Your task to perform on an android device: refresh tabs in the chrome app Image 0: 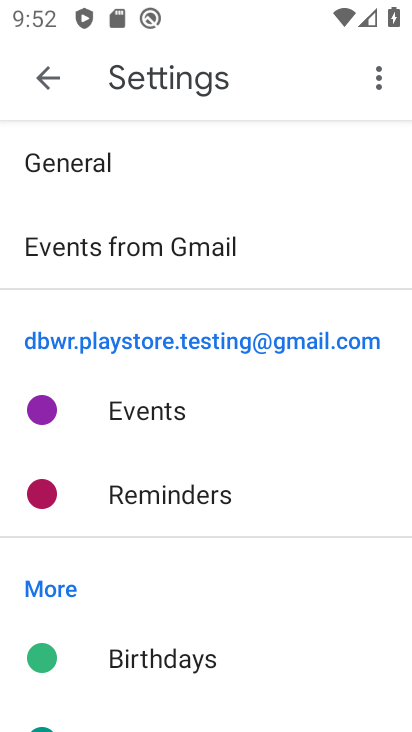
Step 0: press home button
Your task to perform on an android device: refresh tabs in the chrome app Image 1: 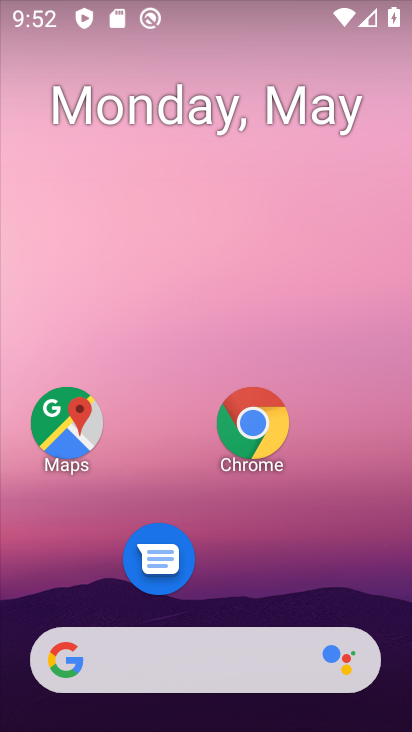
Step 1: click (243, 422)
Your task to perform on an android device: refresh tabs in the chrome app Image 2: 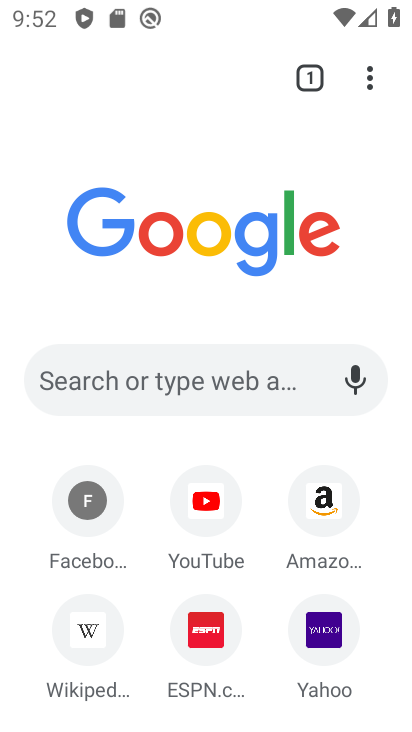
Step 2: click (377, 86)
Your task to perform on an android device: refresh tabs in the chrome app Image 3: 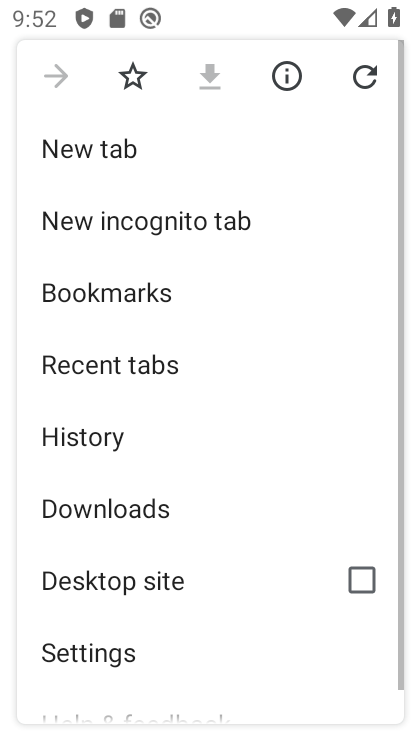
Step 3: click (377, 86)
Your task to perform on an android device: refresh tabs in the chrome app Image 4: 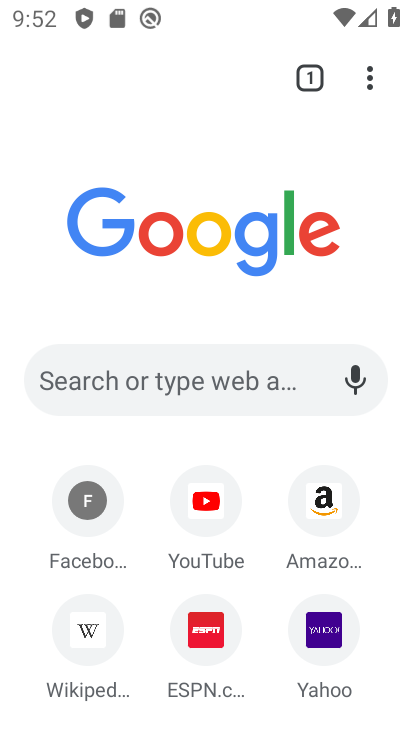
Step 4: click (368, 73)
Your task to perform on an android device: refresh tabs in the chrome app Image 5: 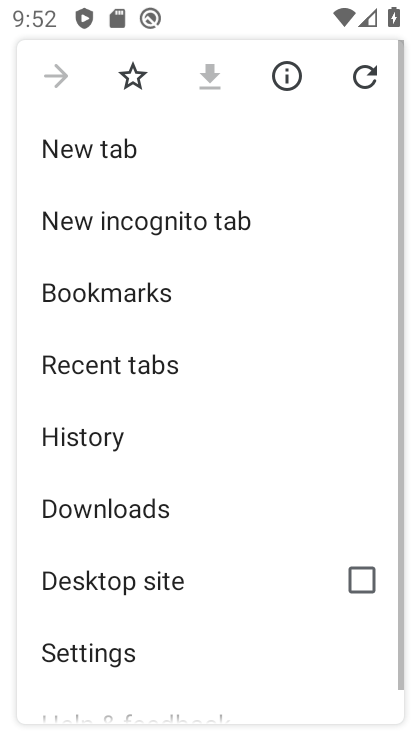
Step 5: click (368, 73)
Your task to perform on an android device: refresh tabs in the chrome app Image 6: 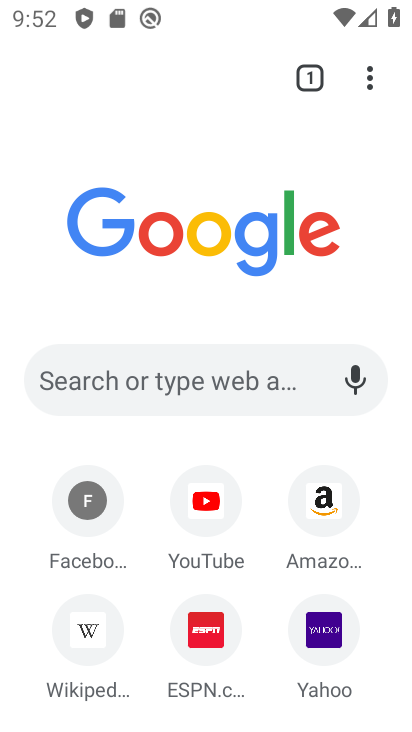
Step 6: task complete